Your task to perform on an android device: Open sound settings Image 0: 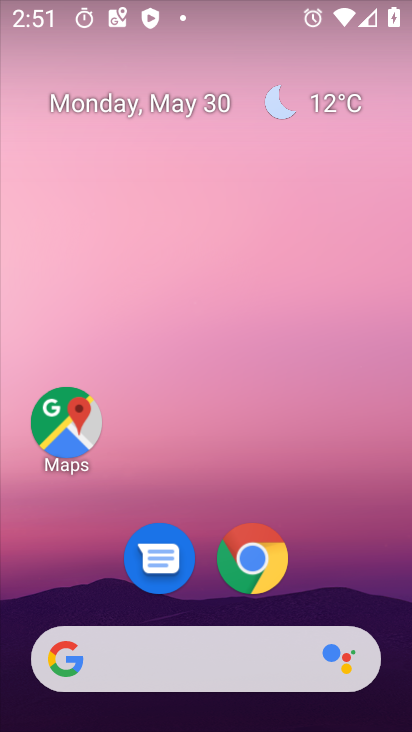
Step 0: drag from (236, 474) to (254, 41)
Your task to perform on an android device: Open sound settings Image 1: 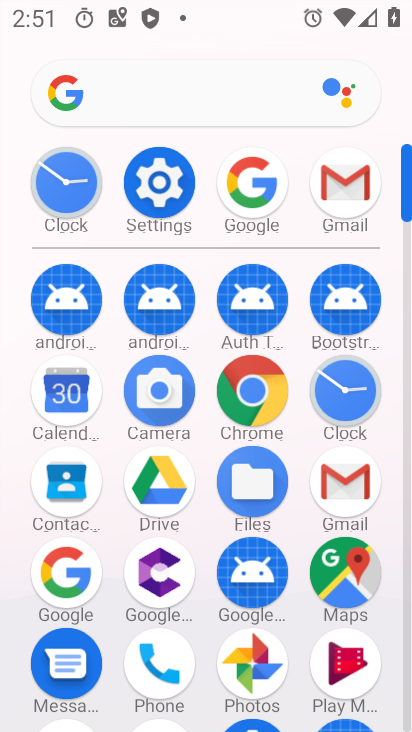
Step 1: click (171, 182)
Your task to perform on an android device: Open sound settings Image 2: 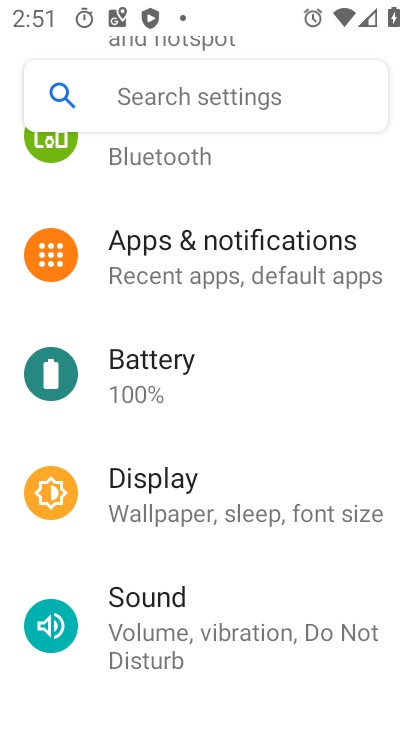
Step 2: click (185, 597)
Your task to perform on an android device: Open sound settings Image 3: 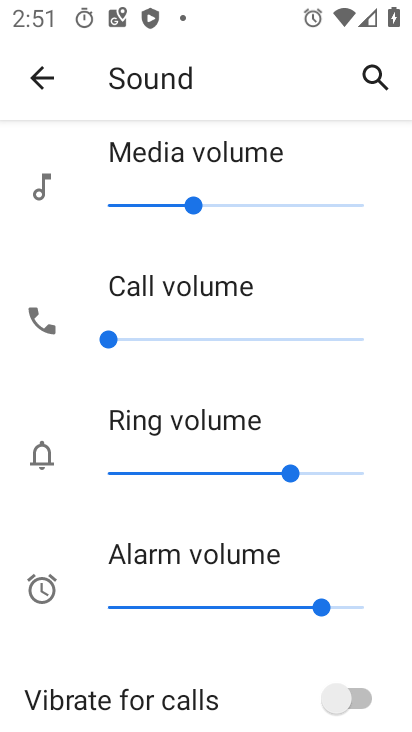
Step 3: task complete